Your task to perform on an android device: turn on javascript in the chrome app Image 0: 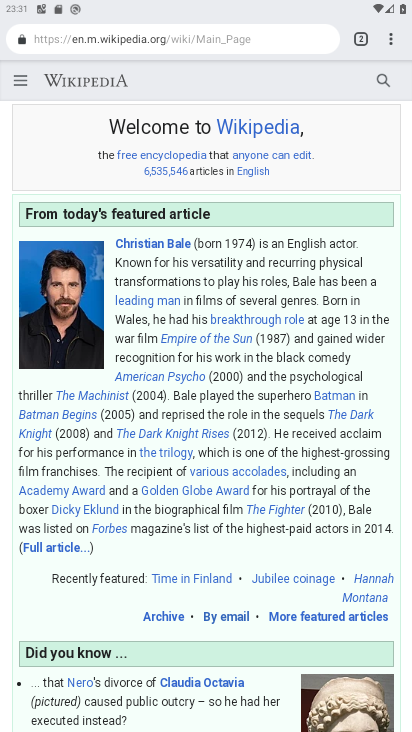
Step 0: press home button
Your task to perform on an android device: turn on javascript in the chrome app Image 1: 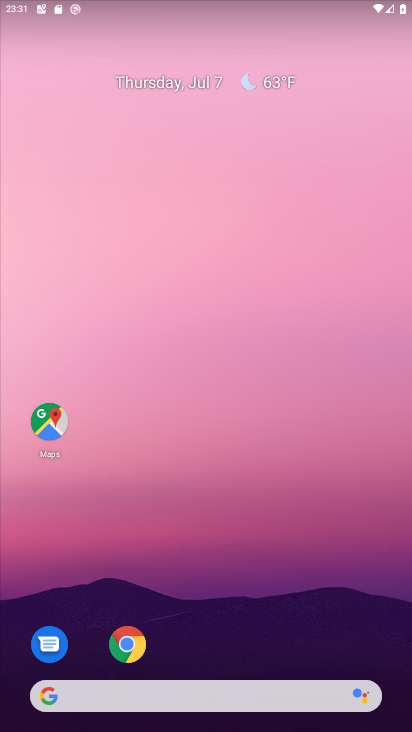
Step 1: click (124, 645)
Your task to perform on an android device: turn on javascript in the chrome app Image 2: 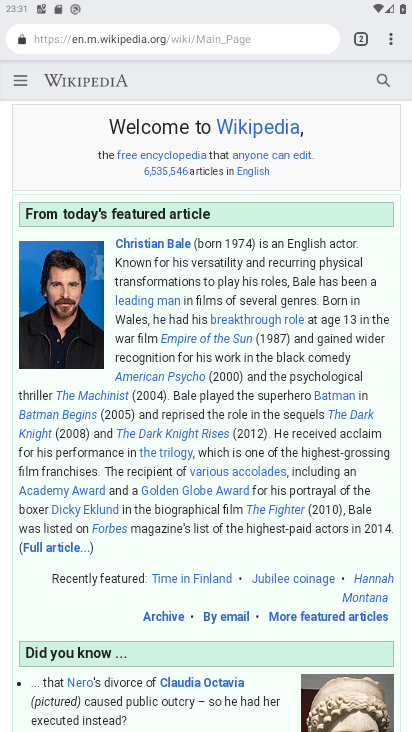
Step 2: click (393, 44)
Your task to perform on an android device: turn on javascript in the chrome app Image 3: 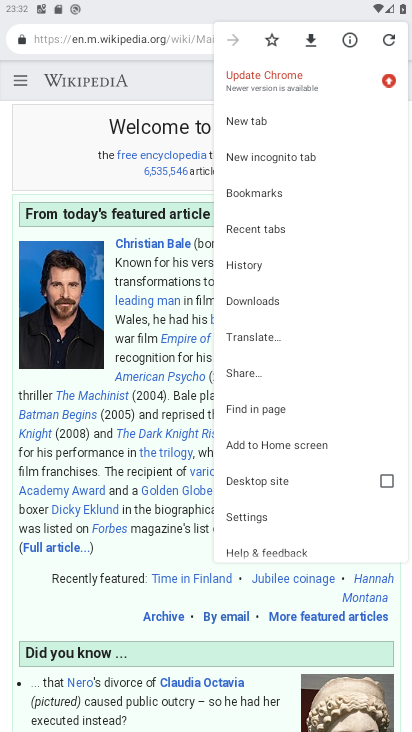
Step 3: click (250, 515)
Your task to perform on an android device: turn on javascript in the chrome app Image 4: 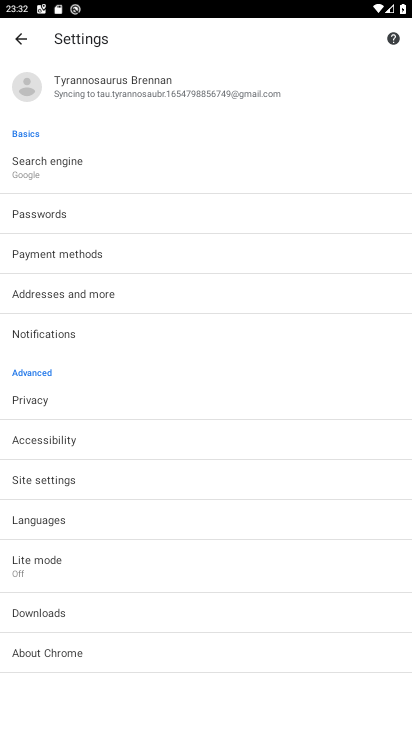
Step 4: click (43, 476)
Your task to perform on an android device: turn on javascript in the chrome app Image 5: 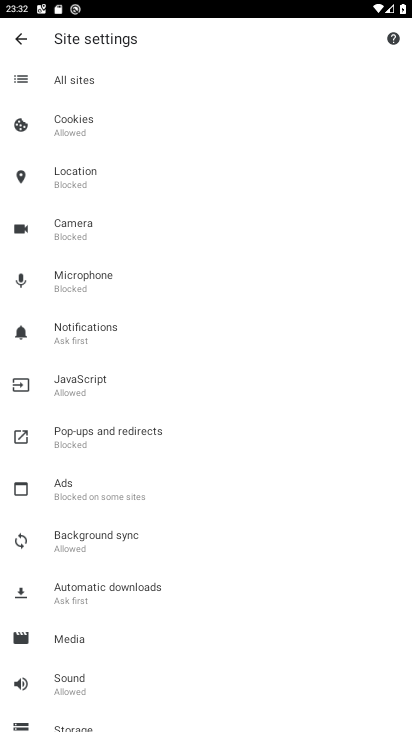
Step 5: click (80, 383)
Your task to perform on an android device: turn on javascript in the chrome app Image 6: 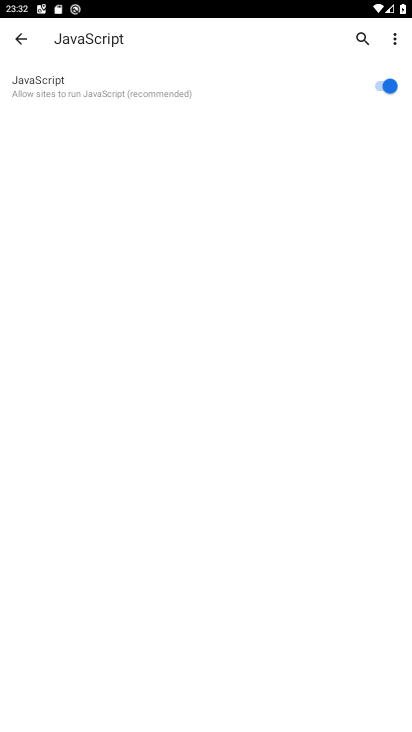
Step 6: task complete